Your task to perform on an android device: check storage Image 0: 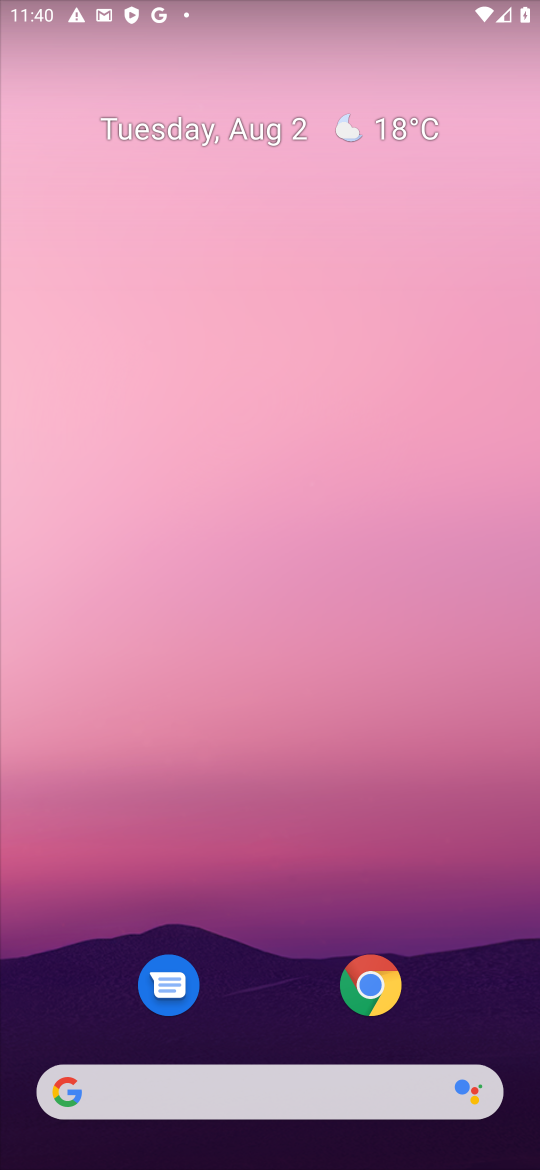
Step 0: drag from (270, 1056) to (171, 182)
Your task to perform on an android device: check storage Image 1: 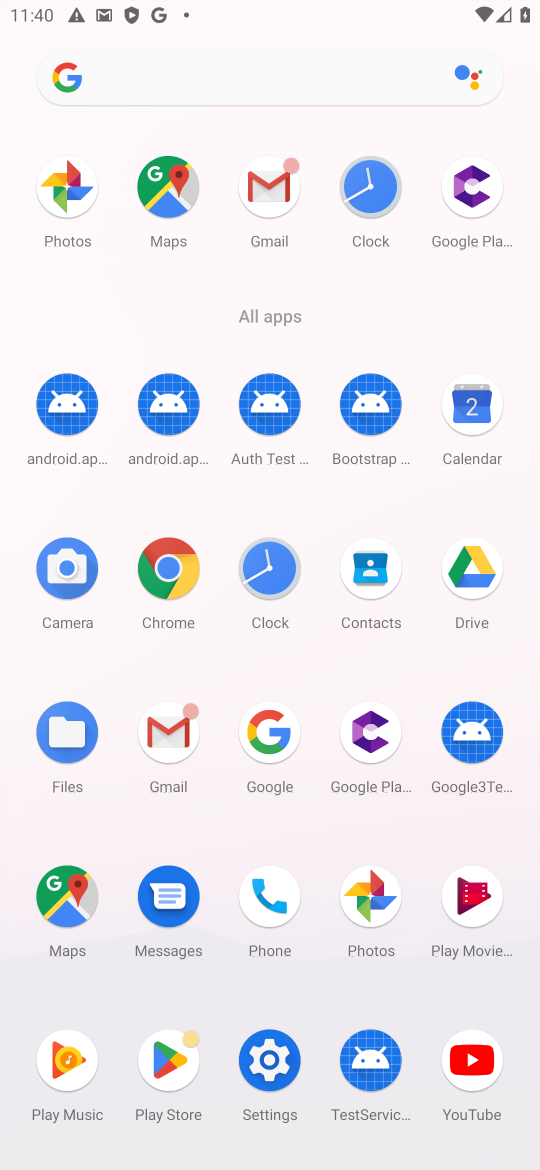
Step 1: click (294, 1063)
Your task to perform on an android device: check storage Image 2: 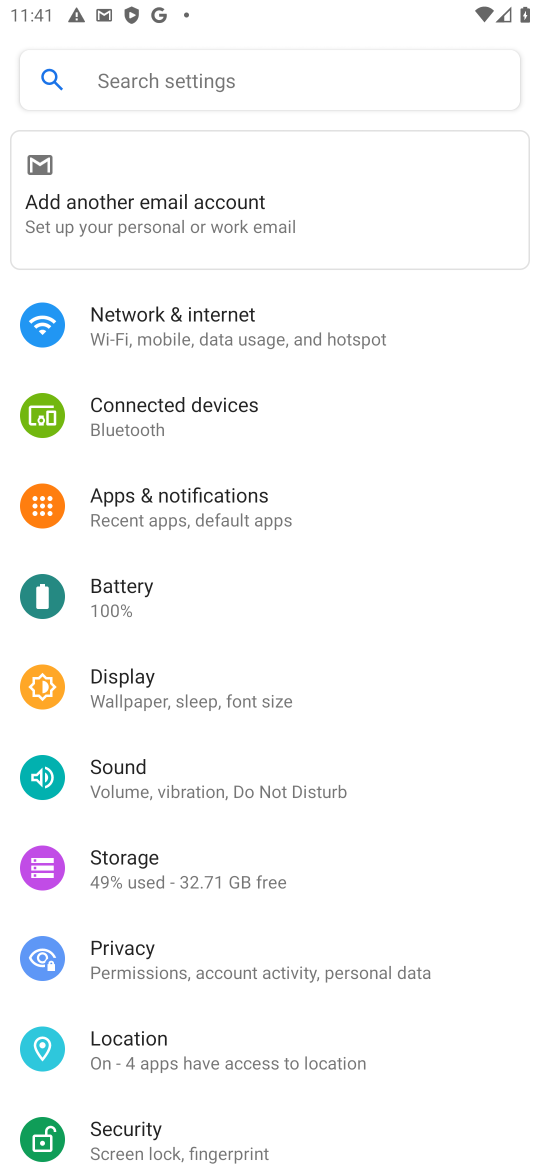
Step 2: click (199, 847)
Your task to perform on an android device: check storage Image 3: 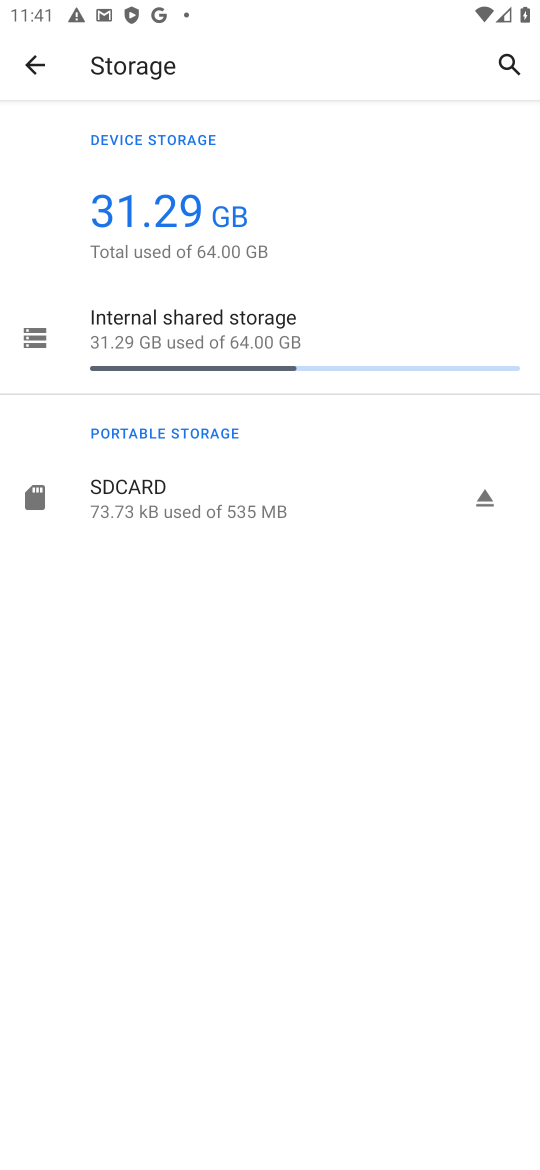
Step 3: task complete